Your task to perform on an android device: Open CNN.com Image 0: 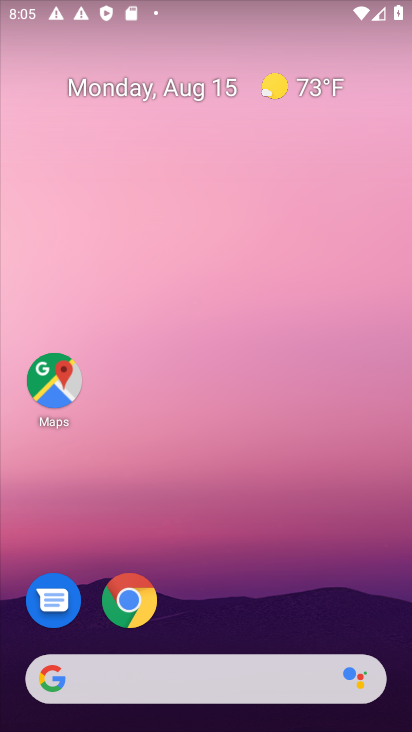
Step 0: click (120, 607)
Your task to perform on an android device: Open CNN.com Image 1: 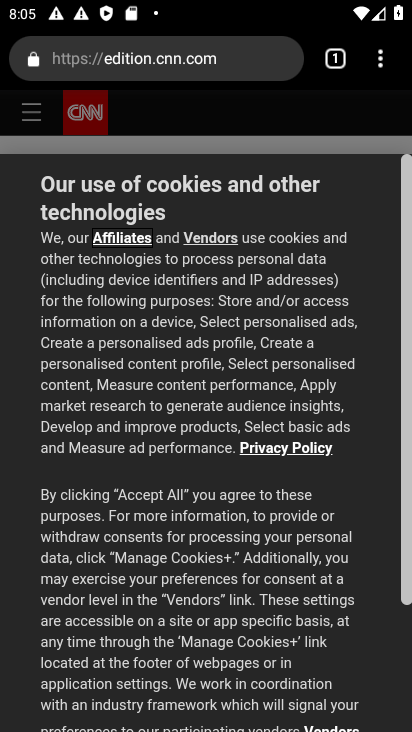
Step 1: task complete